Your task to perform on an android device: check android version Image 0: 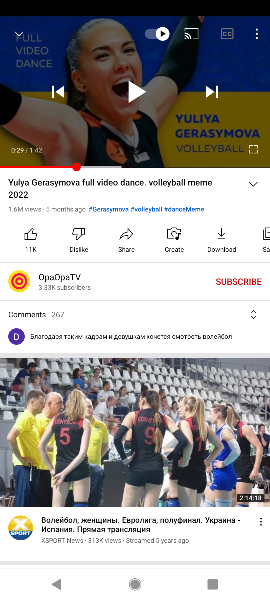
Step 0: press home button
Your task to perform on an android device: check android version Image 1: 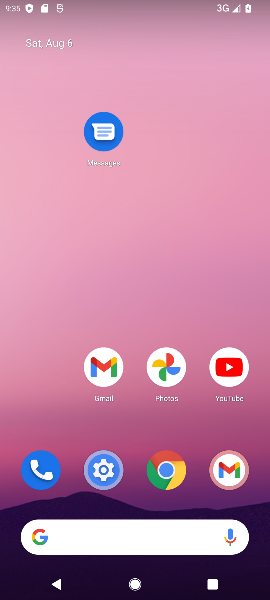
Step 1: drag from (144, 508) to (148, 104)
Your task to perform on an android device: check android version Image 2: 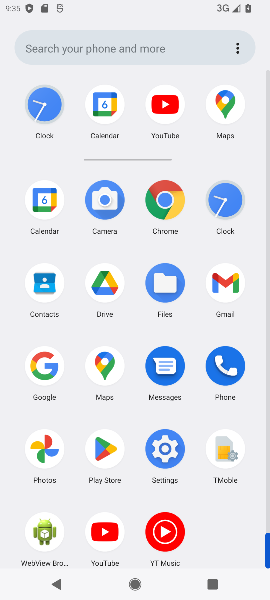
Step 2: click (167, 448)
Your task to perform on an android device: check android version Image 3: 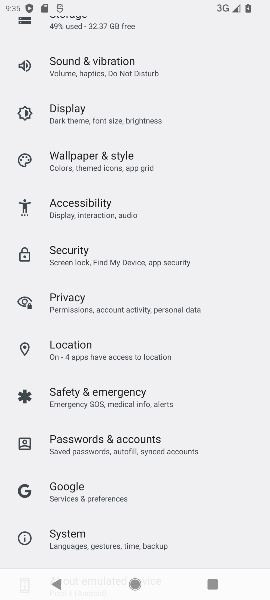
Step 3: drag from (141, 442) to (148, 47)
Your task to perform on an android device: check android version Image 4: 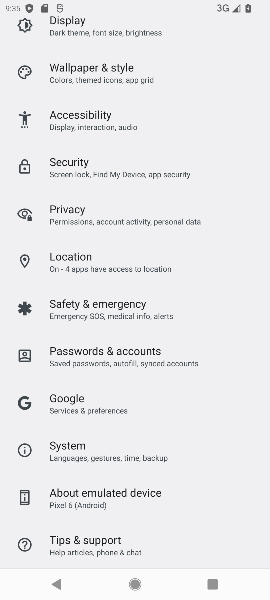
Step 4: click (80, 489)
Your task to perform on an android device: check android version Image 5: 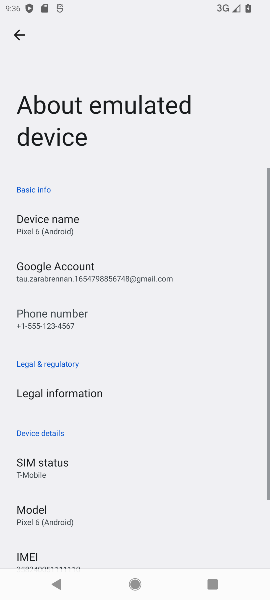
Step 5: drag from (126, 444) to (133, 101)
Your task to perform on an android device: check android version Image 6: 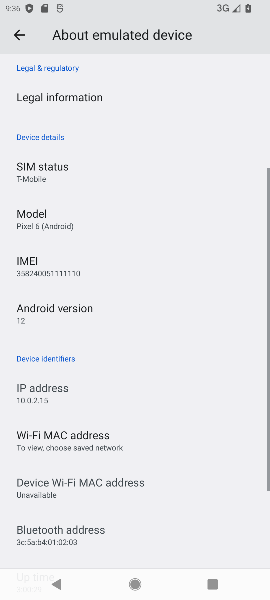
Step 6: drag from (105, 406) to (108, 155)
Your task to perform on an android device: check android version Image 7: 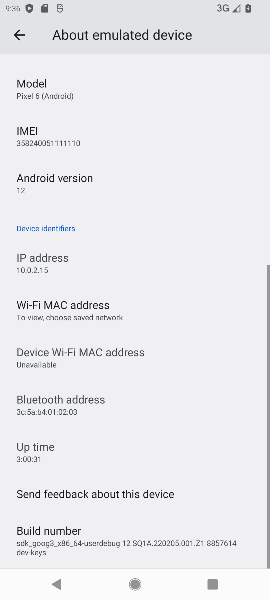
Step 7: click (90, 178)
Your task to perform on an android device: check android version Image 8: 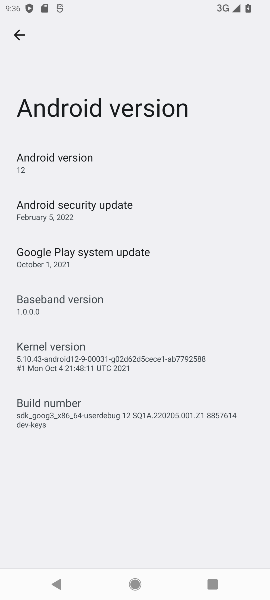
Step 8: click (119, 160)
Your task to perform on an android device: check android version Image 9: 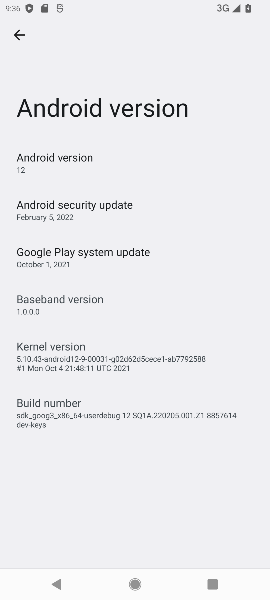
Step 9: click (119, 160)
Your task to perform on an android device: check android version Image 10: 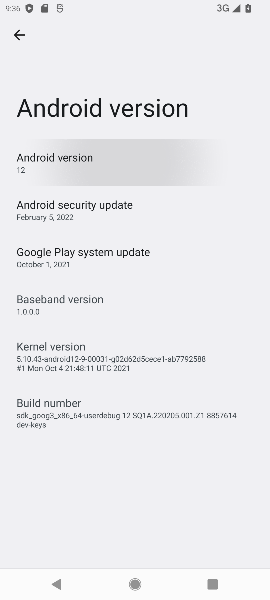
Step 10: click (119, 160)
Your task to perform on an android device: check android version Image 11: 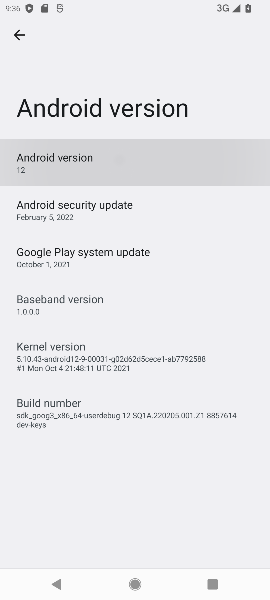
Step 11: click (119, 160)
Your task to perform on an android device: check android version Image 12: 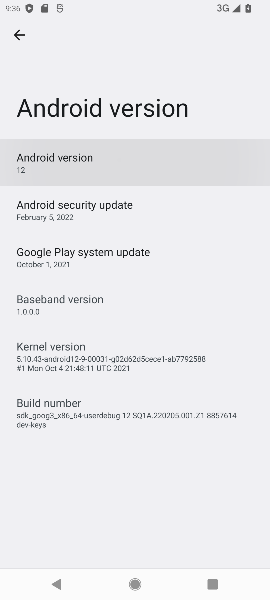
Step 12: click (120, 160)
Your task to perform on an android device: check android version Image 13: 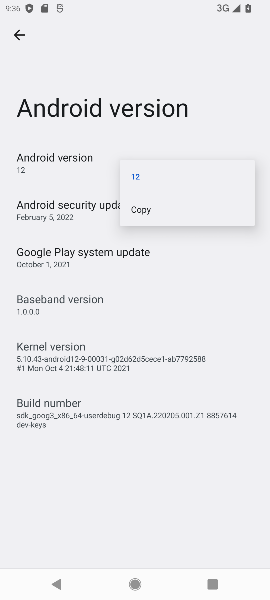
Step 13: task complete